Your task to perform on an android device: turn off location history Image 0: 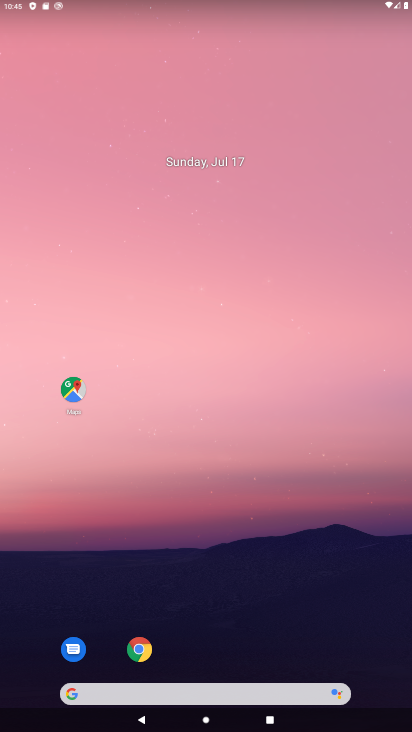
Step 0: drag from (247, 668) to (247, 186)
Your task to perform on an android device: turn off location history Image 1: 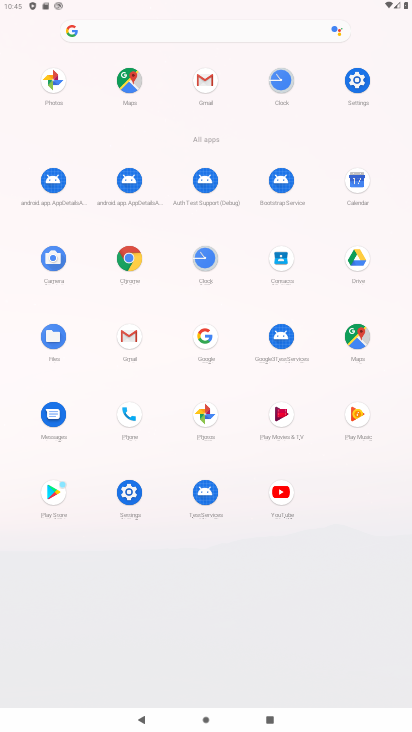
Step 1: click (134, 484)
Your task to perform on an android device: turn off location history Image 2: 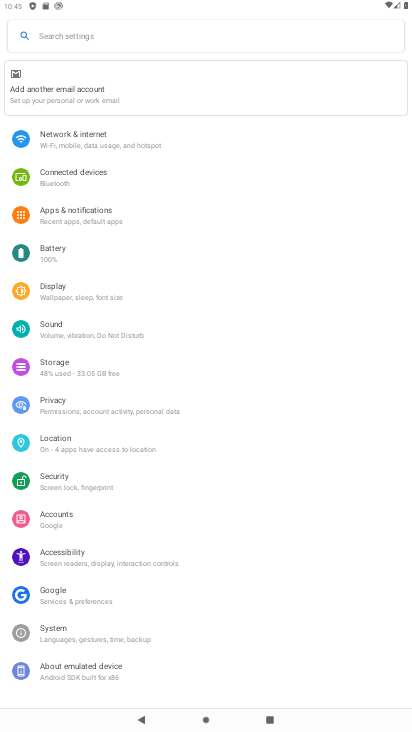
Step 2: click (84, 442)
Your task to perform on an android device: turn off location history Image 3: 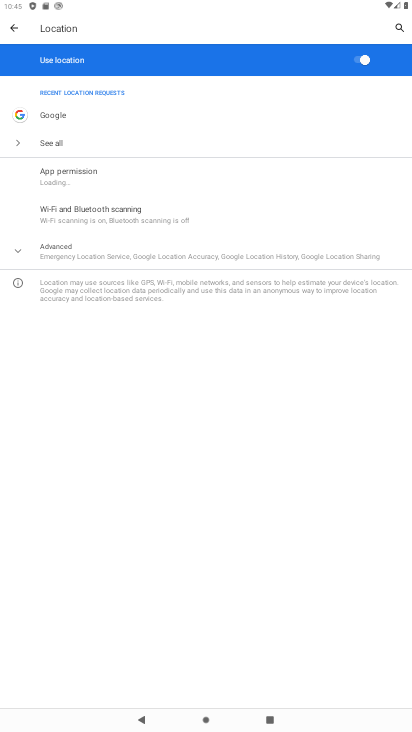
Step 3: click (103, 255)
Your task to perform on an android device: turn off location history Image 4: 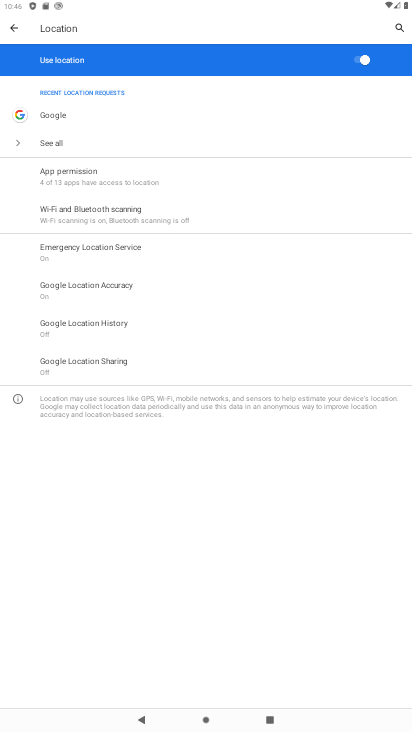
Step 4: click (118, 328)
Your task to perform on an android device: turn off location history Image 5: 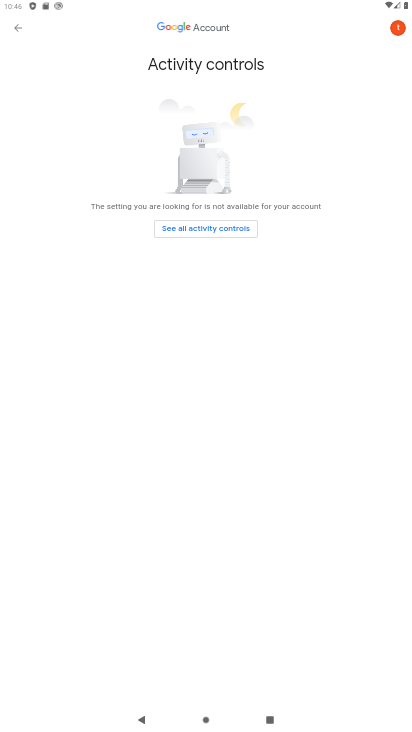
Step 5: task complete